Your task to perform on an android device: toggle improve location accuracy Image 0: 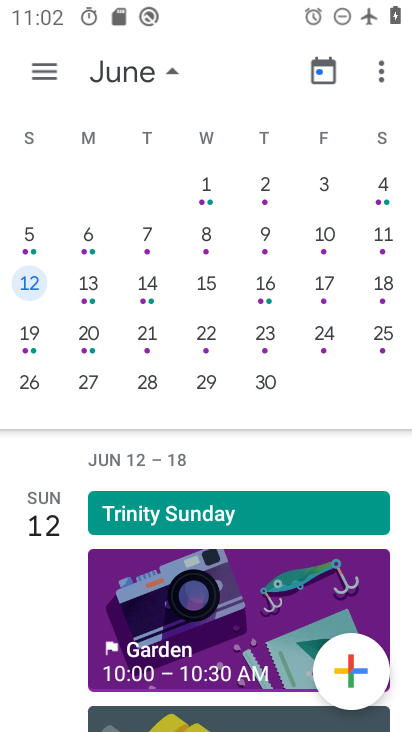
Step 0: press home button
Your task to perform on an android device: toggle improve location accuracy Image 1: 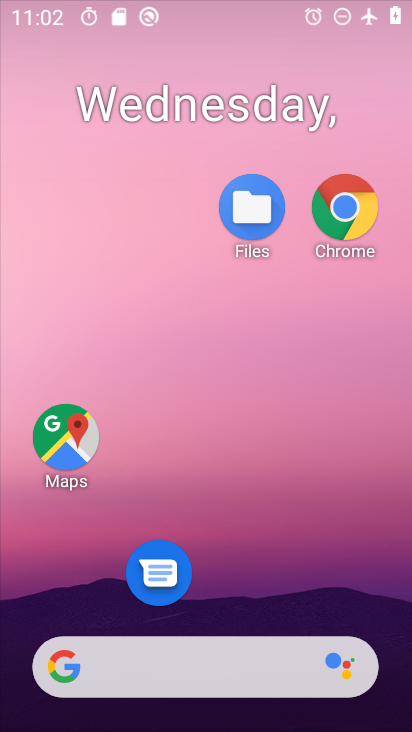
Step 1: drag from (270, 667) to (367, 83)
Your task to perform on an android device: toggle improve location accuracy Image 2: 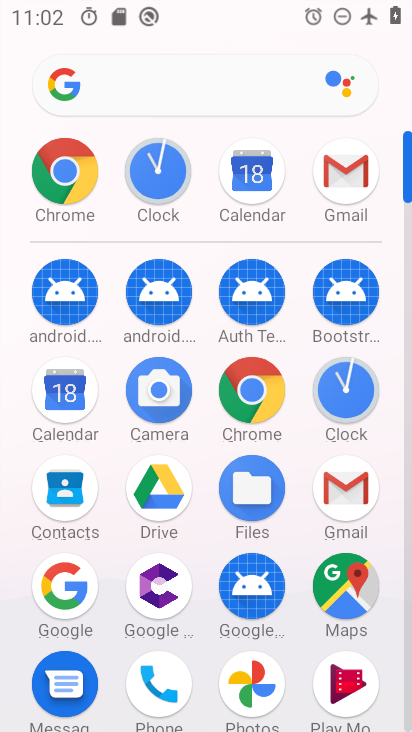
Step 2: drag from (267, 497) to (259, 166)
Your task to perform on an android device: toggle improve location accuracy Image 3: 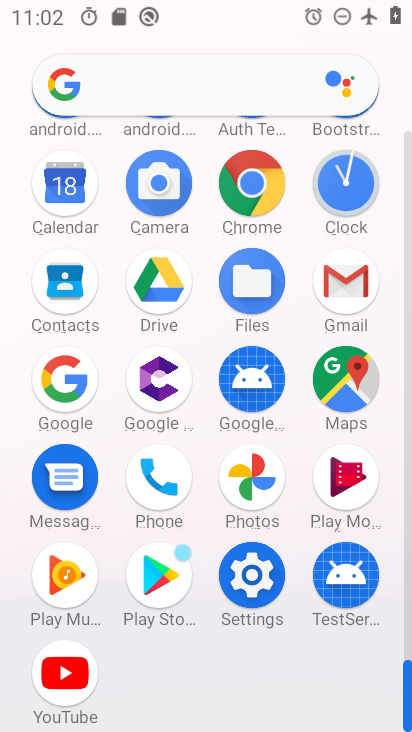
Step 3: click (246, 571)
Your task to perform on an android device: toggle improve location accuracy Image 4: 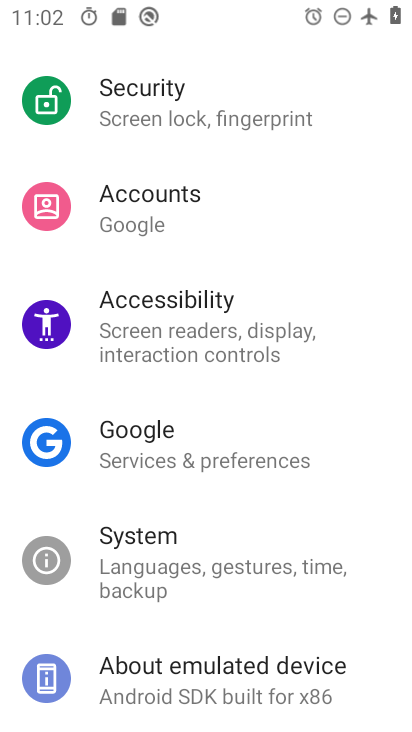
Step 4: drag from (254, 504) to (278, 269)
Your task to perform on an android device: toggle improve location accuracy Image 5: 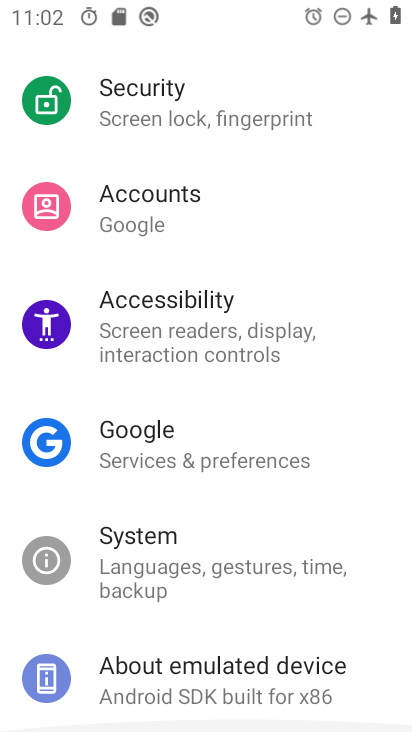
Step 5: drag from (261, 302) to (234, 661)
Your task to perform on an android device: toggle improve location accuracy Image 6: 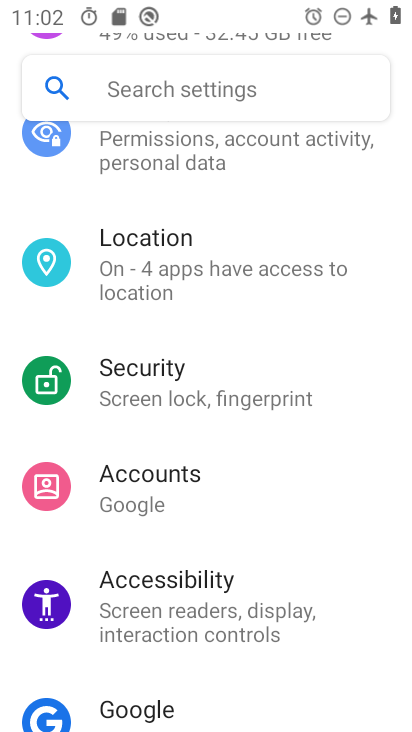
Step 6: click (231, 289)
Your task to perform on an android device: toggle improve location accuracy Image 7: 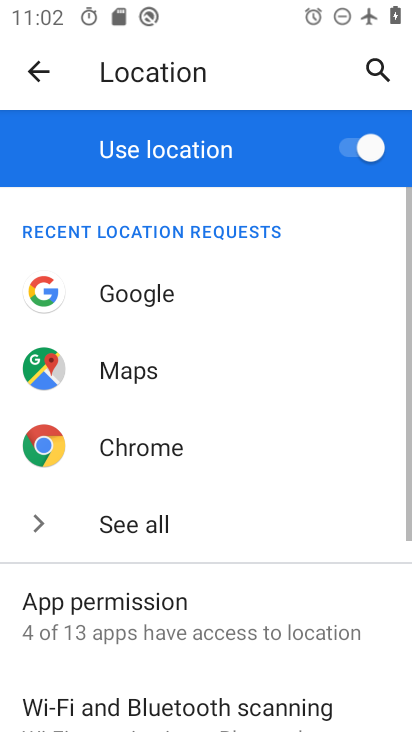
Step 7: drag from (248, 631) to (233, 361)
Your task to perform on an android device: toggle improve location accuracy Image 8: 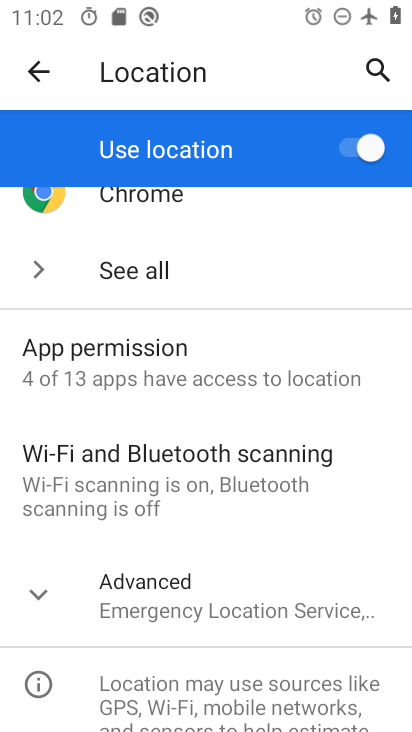
Step 8: click (220, 587)
Your task to perform on an android device: toggle improve location accuracy Image 9: 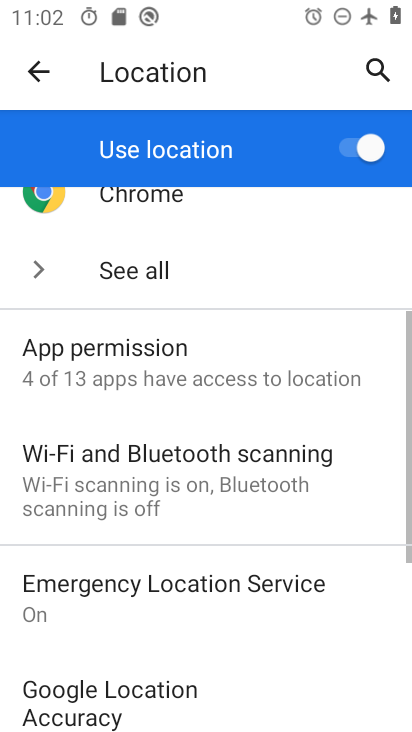
Step 9: drag from (227, 573) to (250, 286)
Your task to perform on an android device: toggle improve location accuracy Image 10: 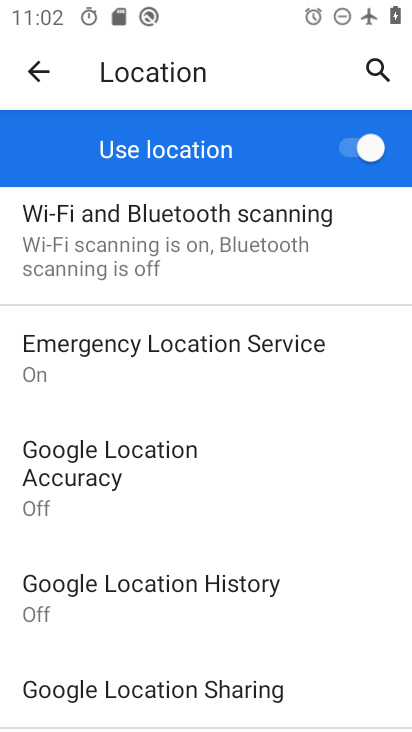
Step 10: click (178, 475)
Your task to perform on an android device: toggle improve location accuracy Image 11: 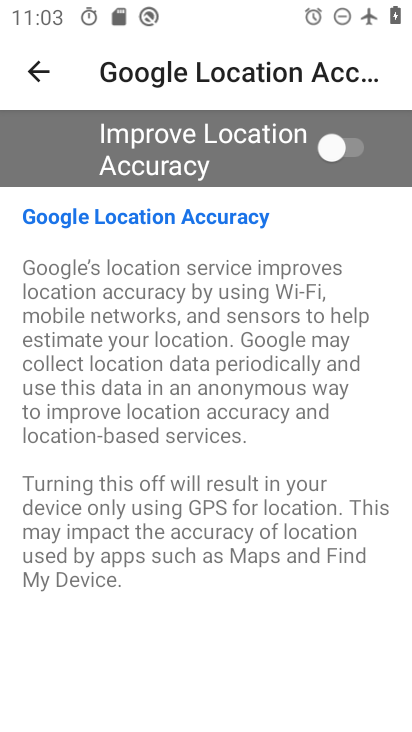
Step 11: click (334, 151)
Your task to perform on an android device: toggle improve location accuracy Image 12: 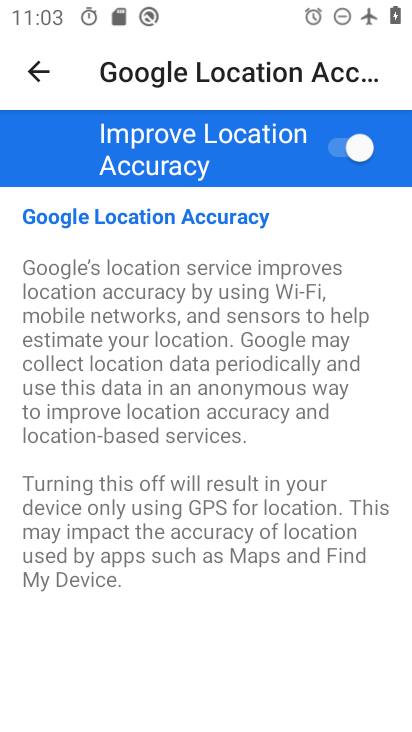
Step 12: task complete